Your task to perform on an android device: turn on airplane mode Image 0: 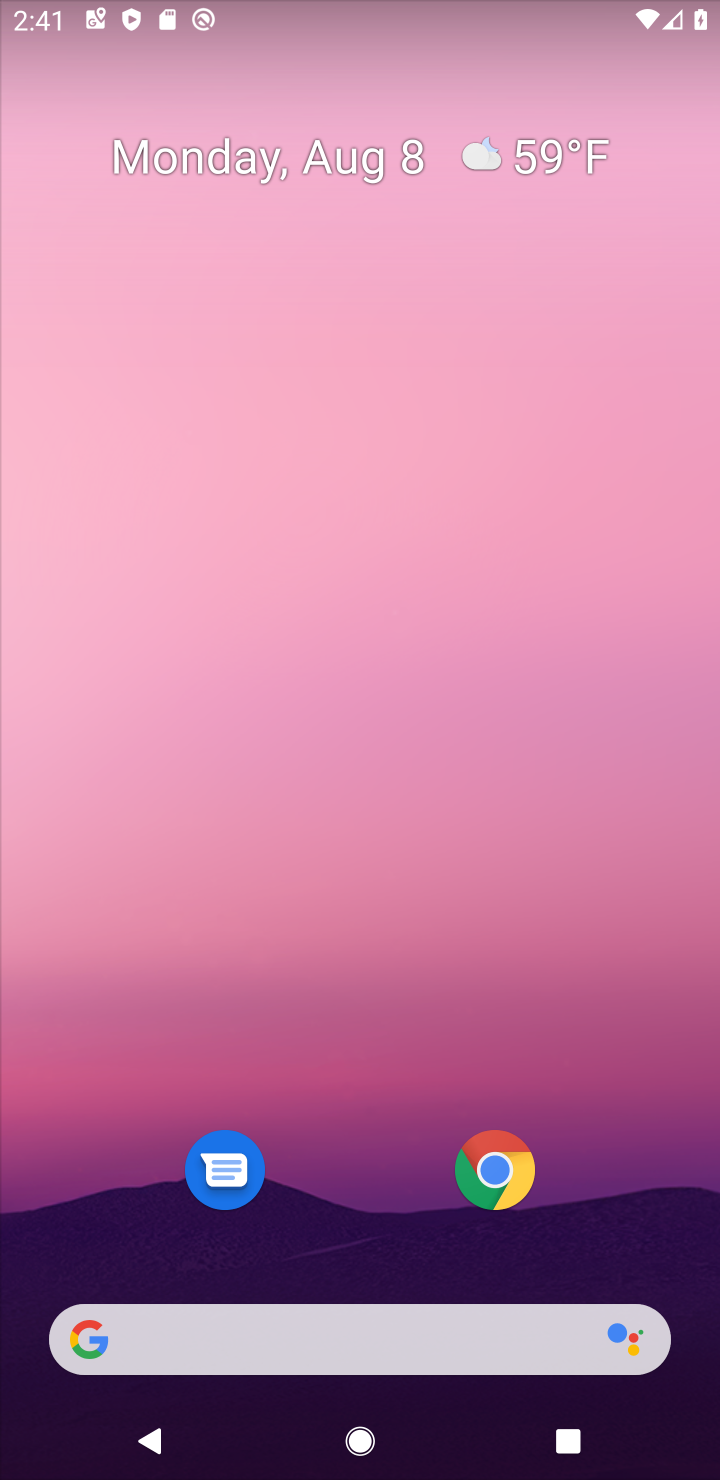
Step 0: drag from (352, 1197) to (352, 450)
Your task to perform on an android device: turn on airplane mode Image 1: 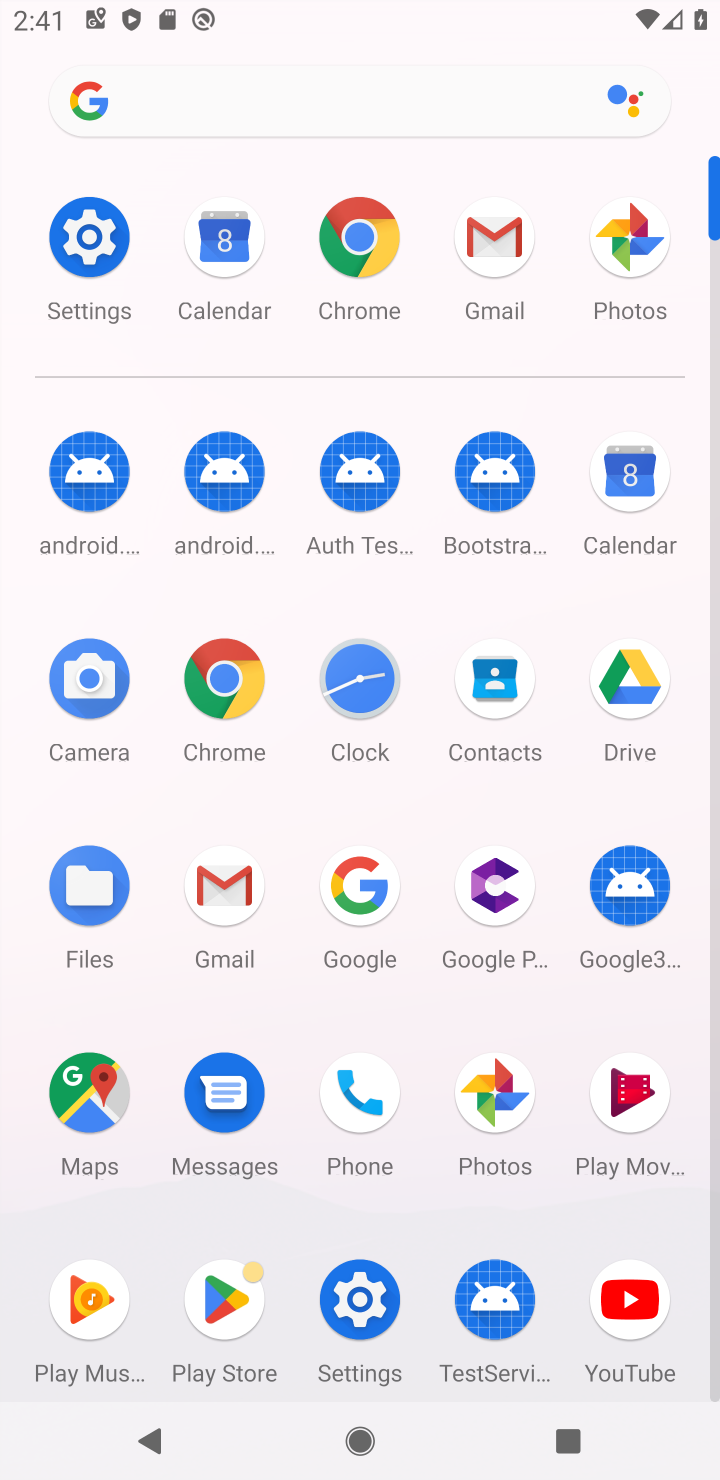
Step 1: click (74, 235)
Your task to perform on an android device: turn on airplane mode Image 2: 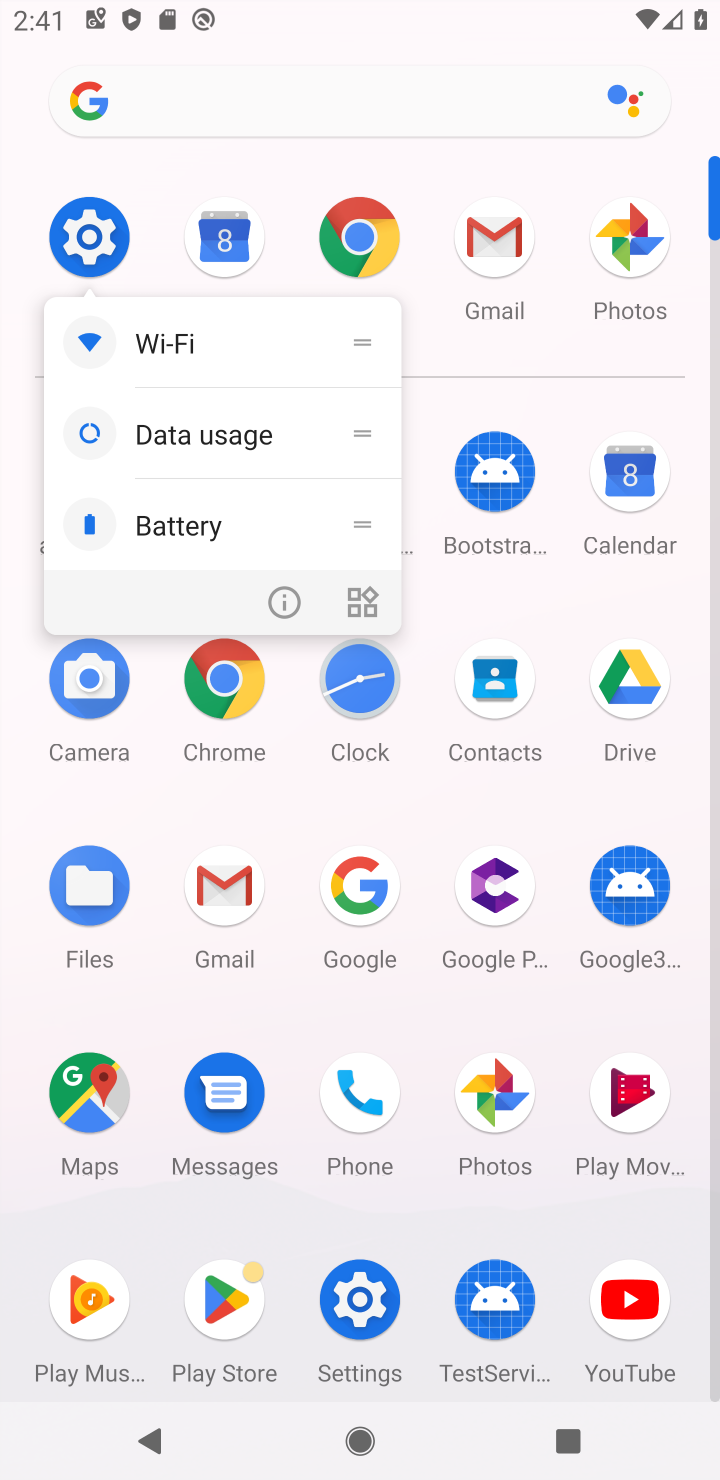
Step 2: click (74, 235)
Your task to perform on an android device: turn on airplane mode Image 3: 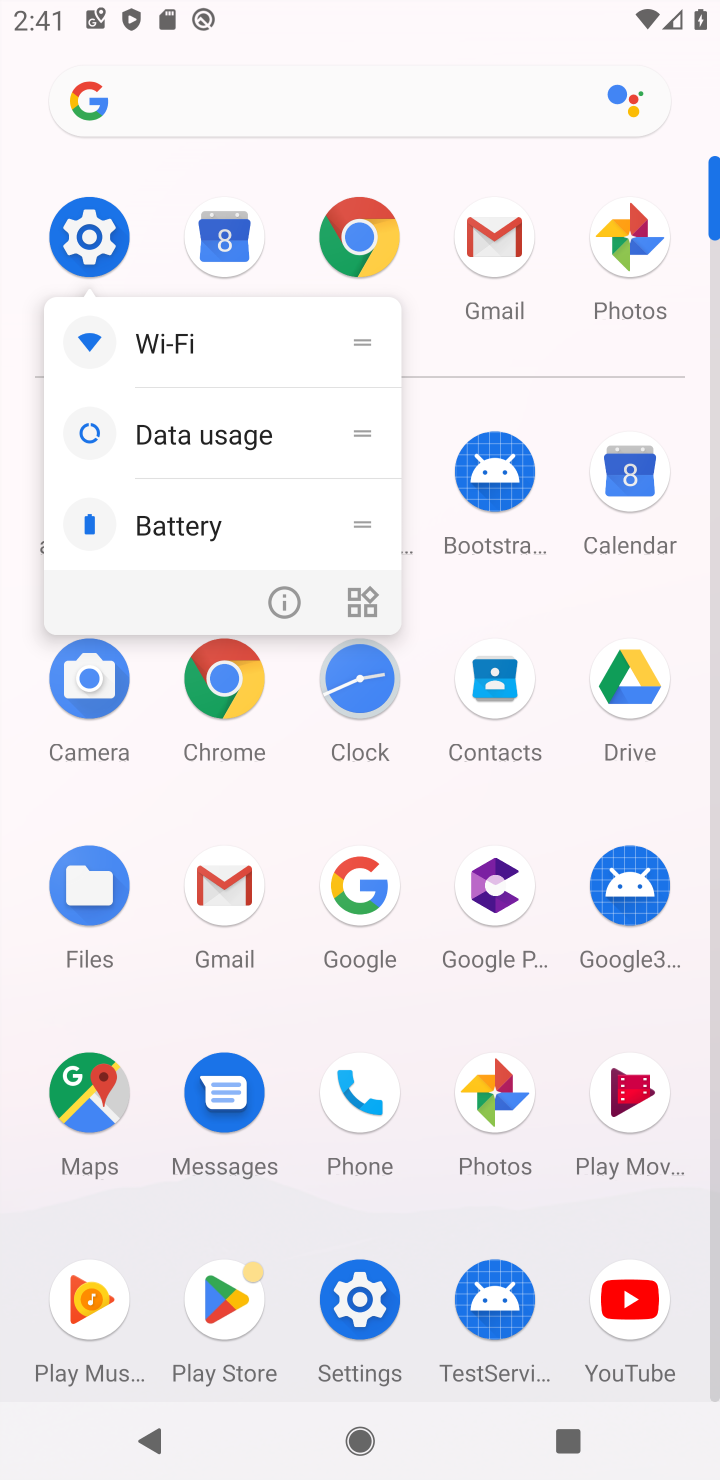
Step 3: click (97, 249)
Your task to perform on an android device: turn on airplane mode Image 4: 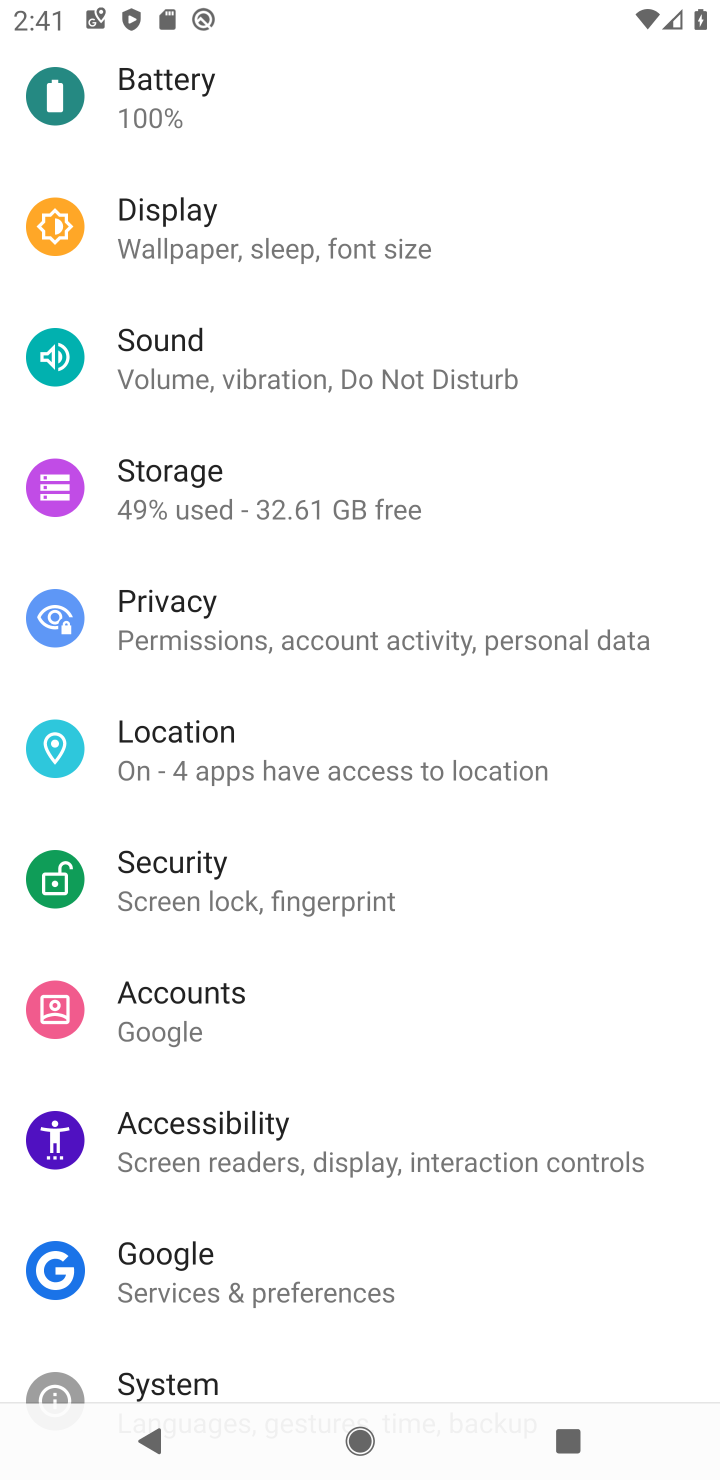
Step 4: drag from (269, 235) to (372, 1019)
Your task to perform on an android device: turn on airplane mode Image 5: 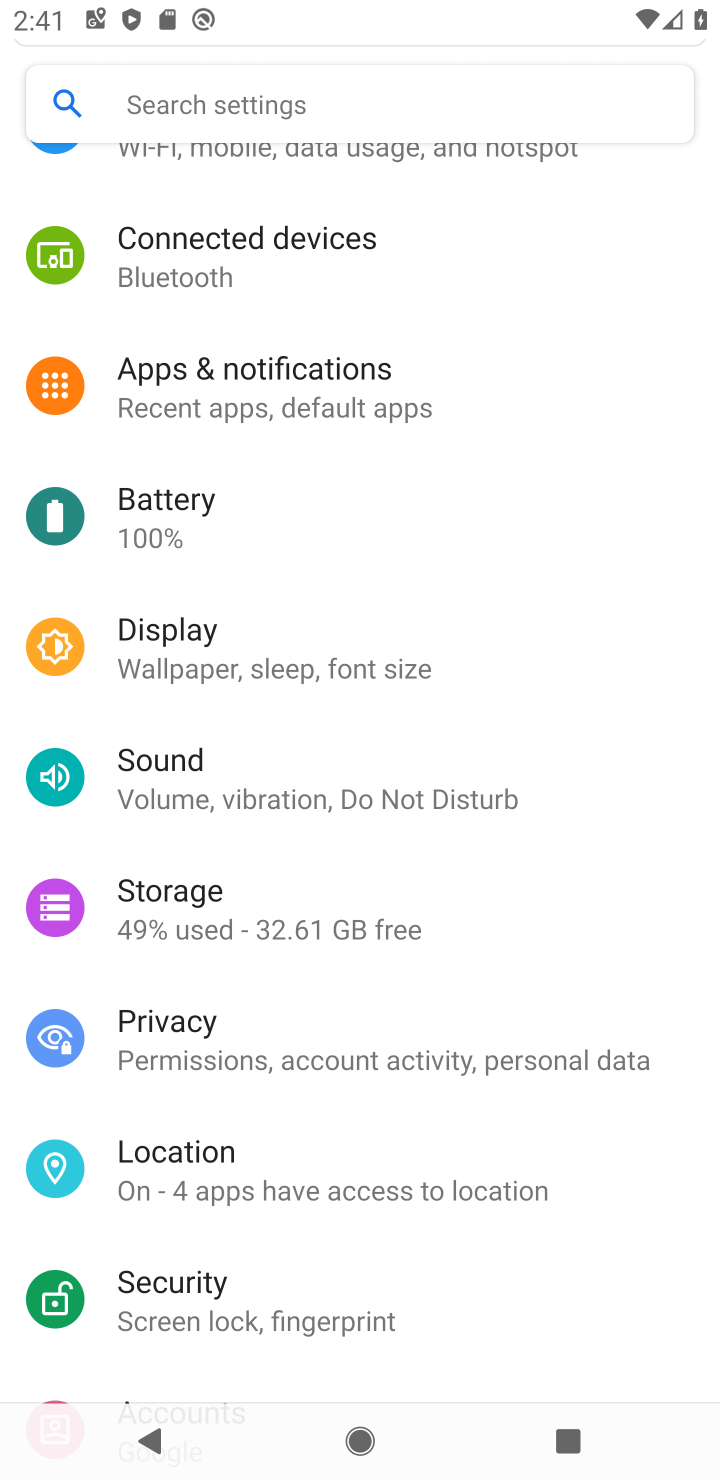
Step 5: drag from (314, 403) to (317, 960)
Your task to perform on an android device: turn on airplane mode Image 6: 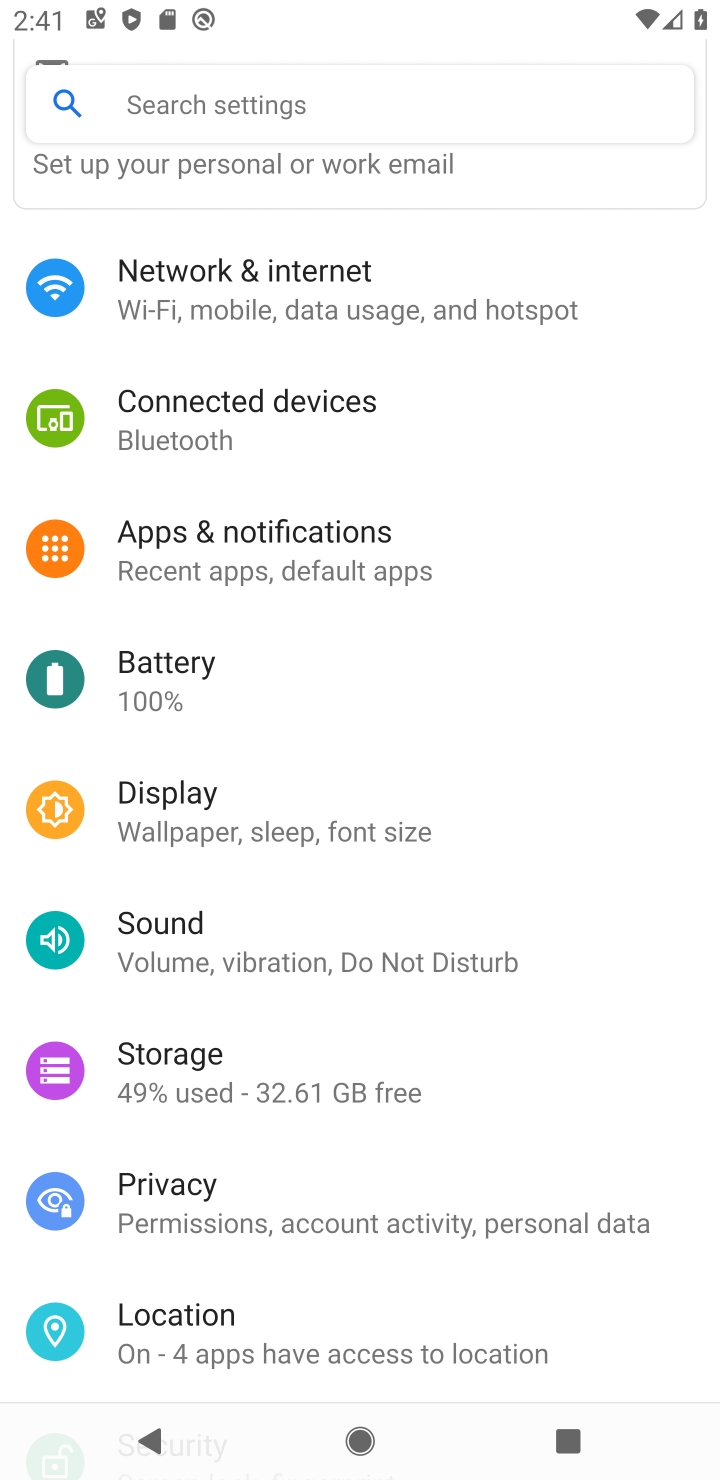
Step 6: click (280, 292)
Your task to perform on an android device: turn on airplane mode Image 7: 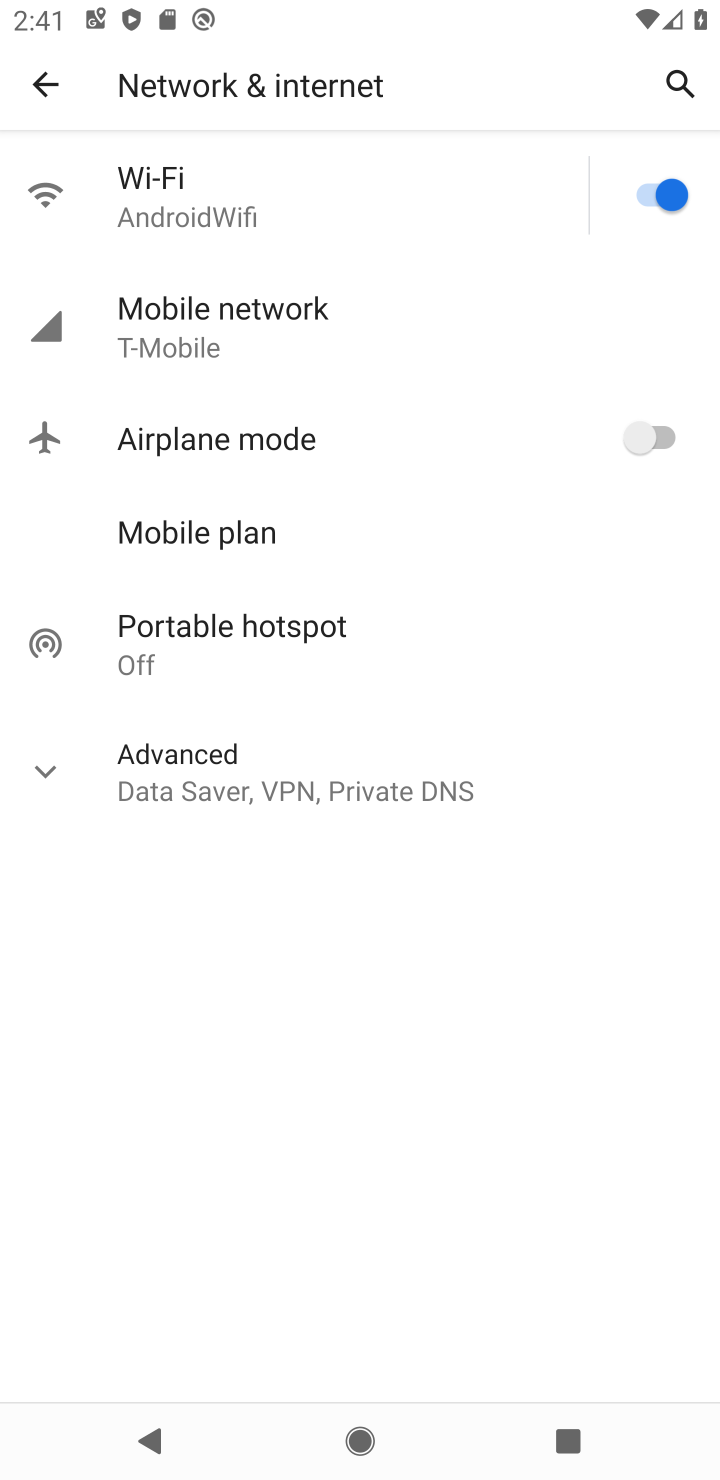
Step 7: click (662, 443)
Your task to perform on an android device: turn on airplane mode Image 8: 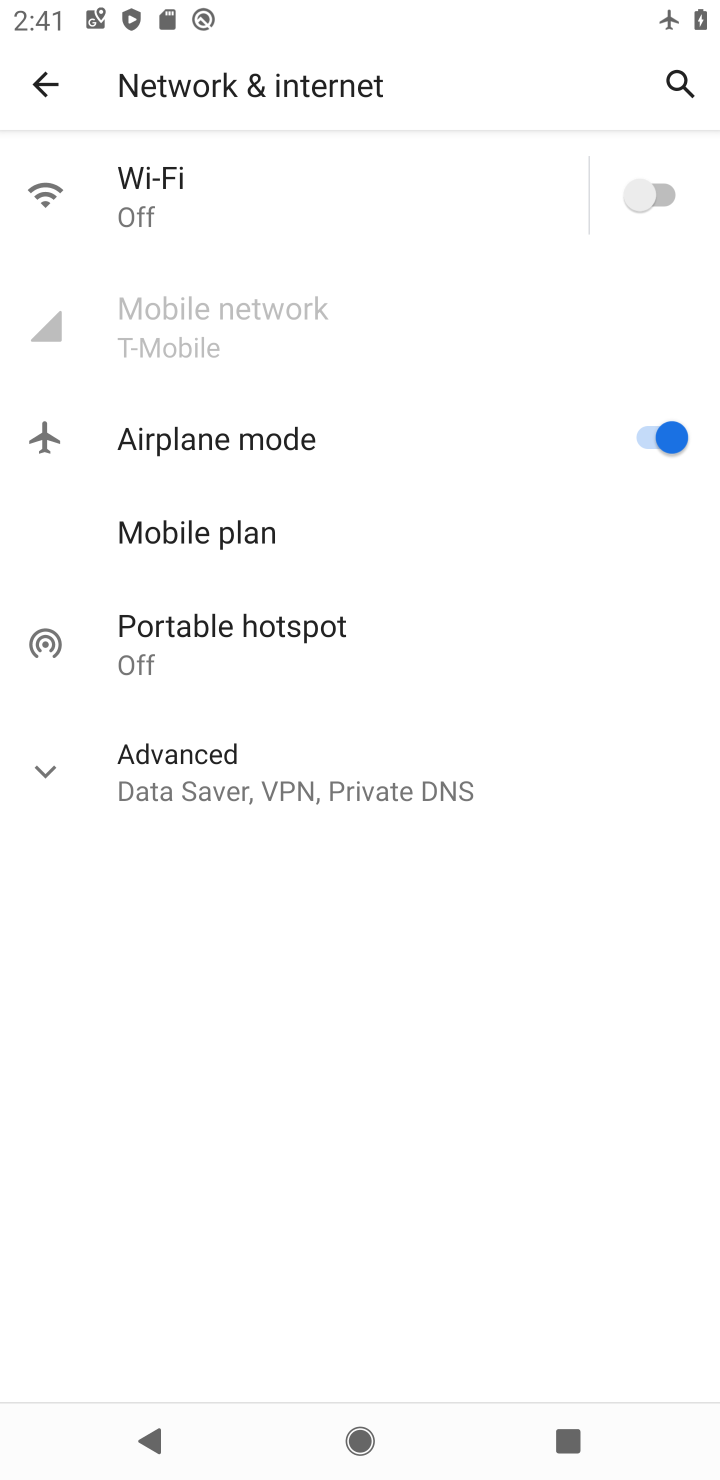
Step 8: task complete